Your task to perform on an android device: Go to Yahoo.com Image 0: 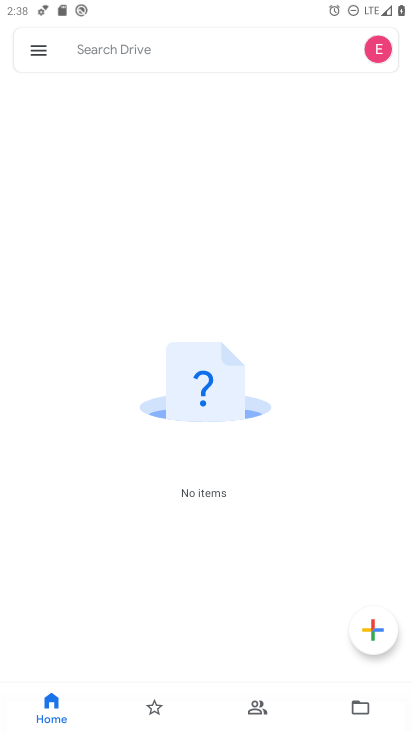
Step 0: press home button
Your task to perform on an android device: Go to Yahoo.com Image 1: 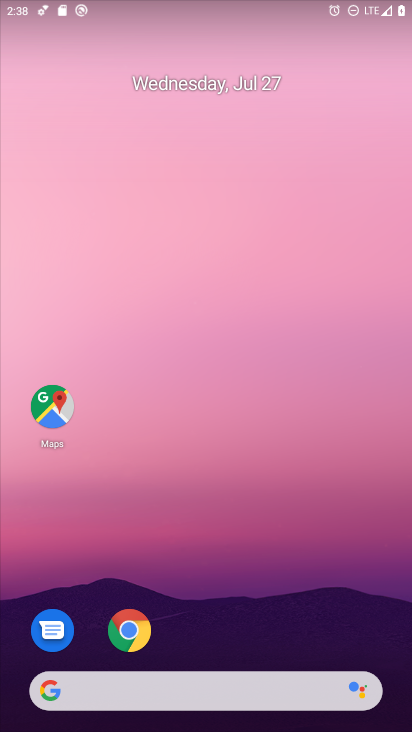
Step 1: click (133, 633)
Your task to perform on an android device: Go to Yahoo.com Image 2: 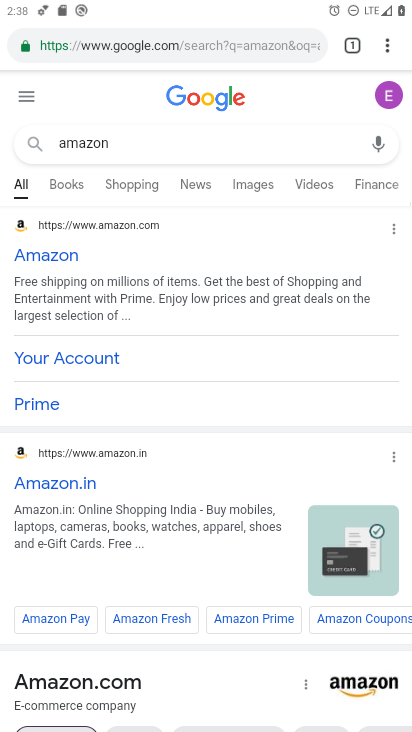
Step 2: click (142, 149)
Your task to perform on an android device: Go to Yahoo.com Image 3: 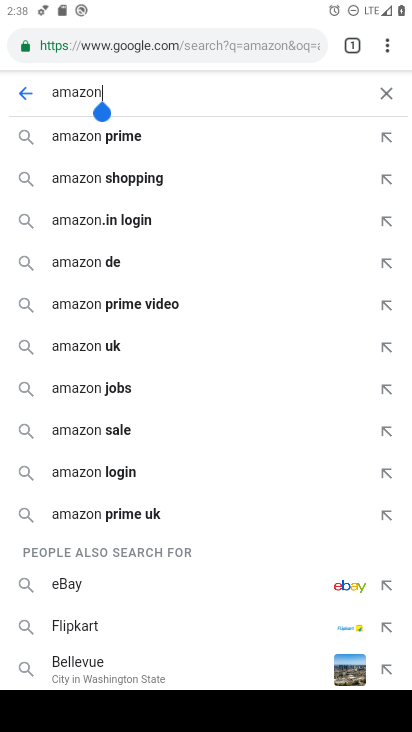
Step 3: click (385, 91)
Your task to perform on an android device: Go to Yahoo.com Image 4: 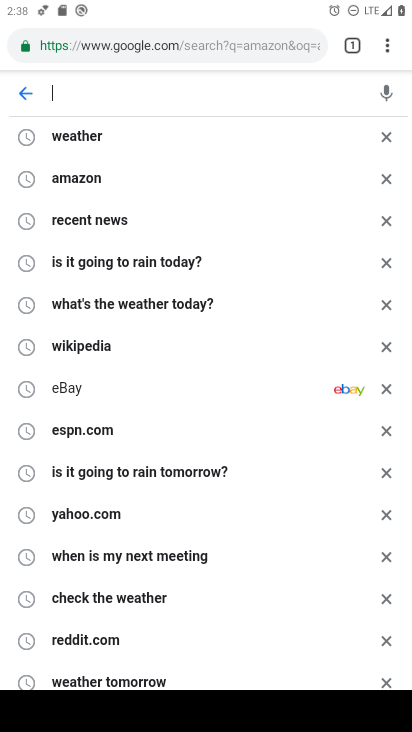
Step 4: type "yahoo.com"
Your task to perform on an android device: Go to Yahoo.com Image 5: 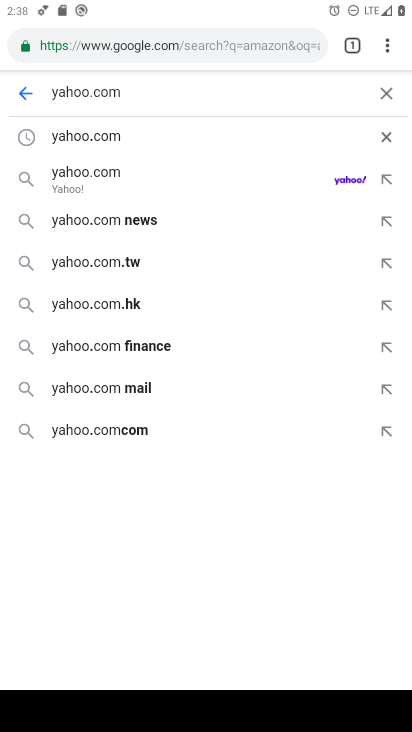
Step 5: click (102, 129)
Your task to perform on an android device: Go to Yahoo.com Image 6: 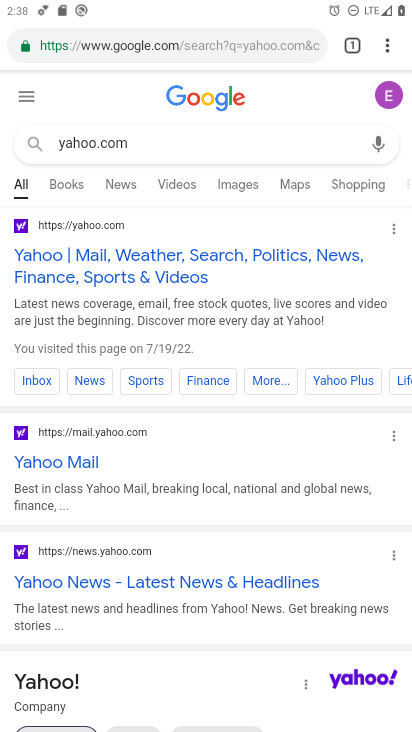
Step 6: click (99, 251)
Your task to perform on an android device: Go to Yahoo.com Image 7: 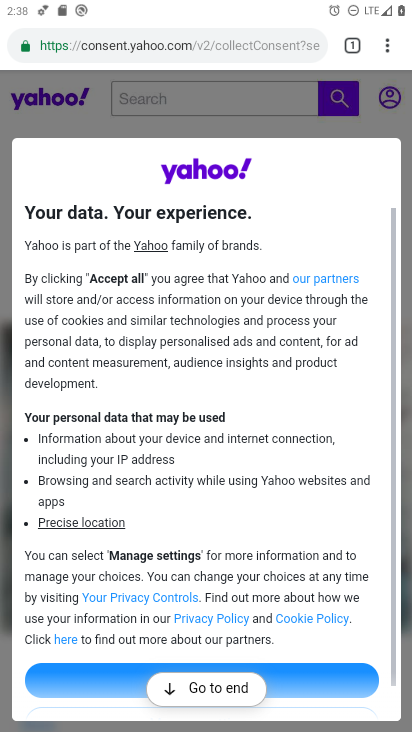
Step 7: click (185, 690)
Your task to perform on an android device: Go to Yahoo.com Image 8: 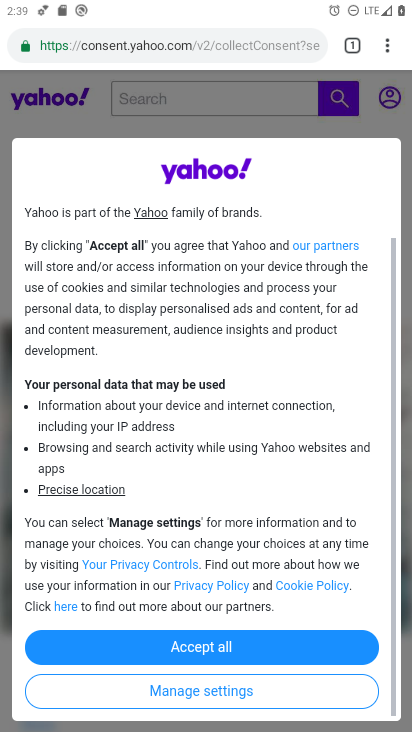
Step 8: click (196, 642)
Your task to perform on an android device: Go to Yahoo.com Image 9: 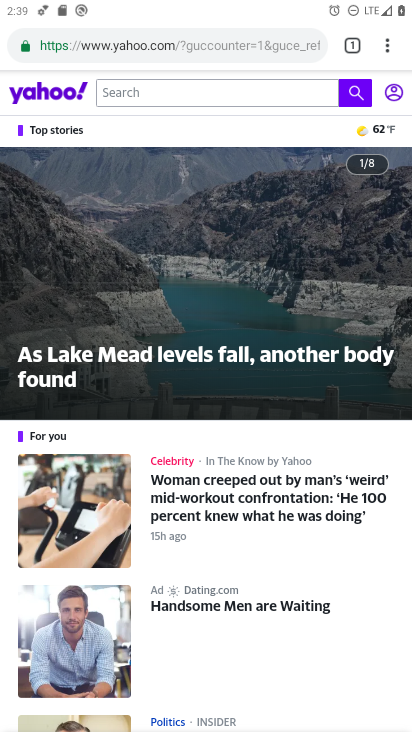
Step 9: task complete